Your task to perform on an android device: turn off notifications settings in the gmail app Image 0: 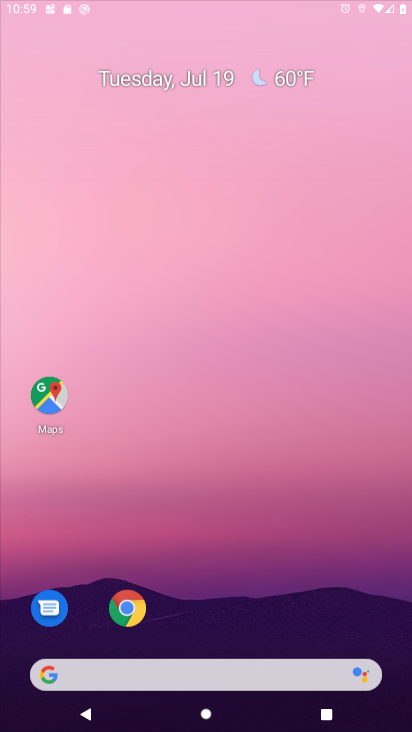
Step 0: click (214, 502)
Your task to perform on an android device: turn off notifications settings in the gmail app Image 1: 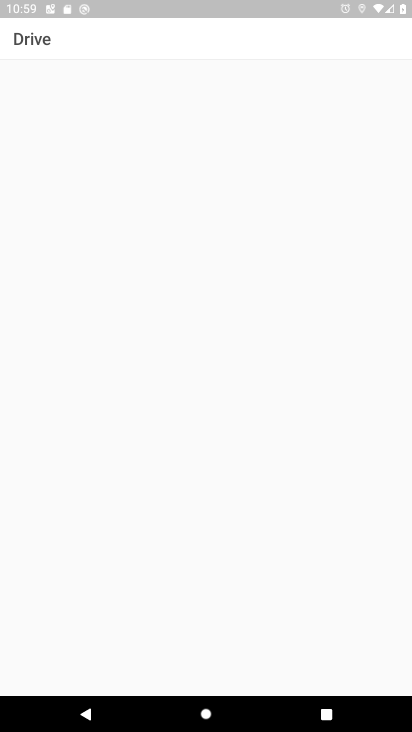
Step 1: press home button
Your task to perform on an android device: turn off notifications settings in the gmail app Image 2: 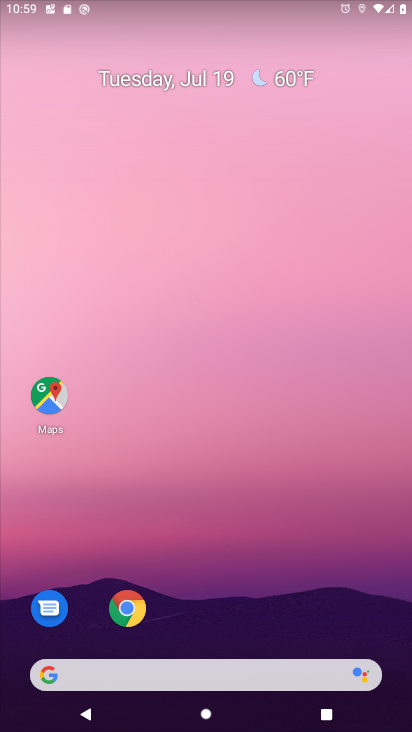
Step 2: drag from (213, 640) to (265, 95)
Your task to perform on an android device: turn off notifications settings in the gmail app Image 3: 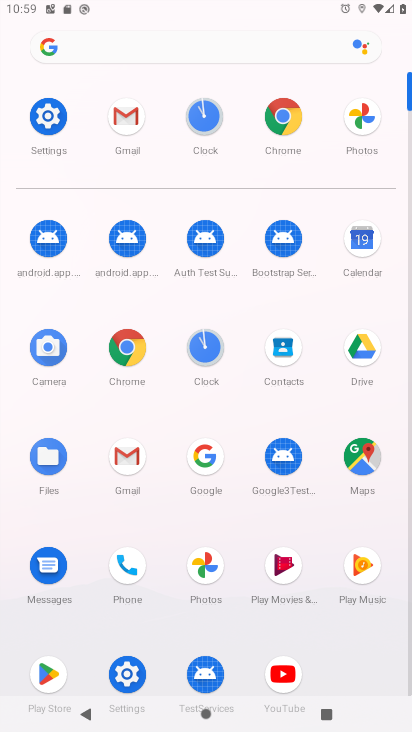
Step 3: click (126, 106)
Your task to perform on an android device: turn off notifications settings in the gmail app Image 4: 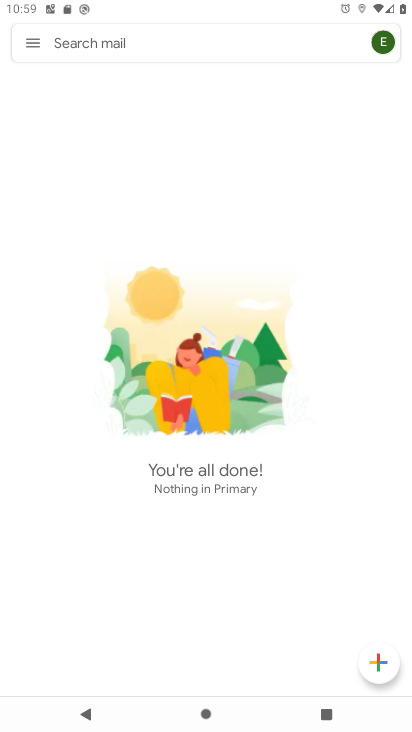
Step 4: click (126, 106)
Your task to perform on an android device: turn off notifications settings in the gmail app Image 5: 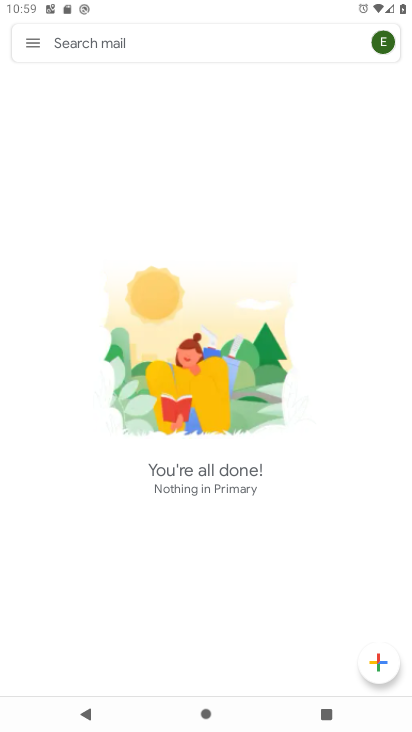
Step 5: click (38, 47)
Your task to perform on an android device: turn off notifications settings in the gmail app Image 6: 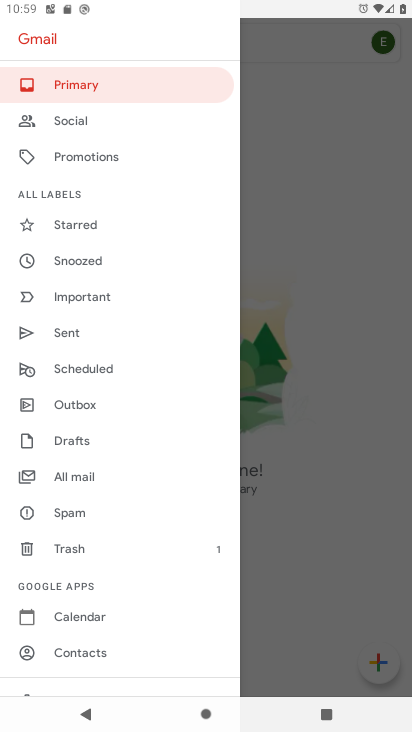
Step 6: drag from (129, 551) to (107, 161)
Your task to perform on an android device: turn off notifications settings in the gmail app Image 7: 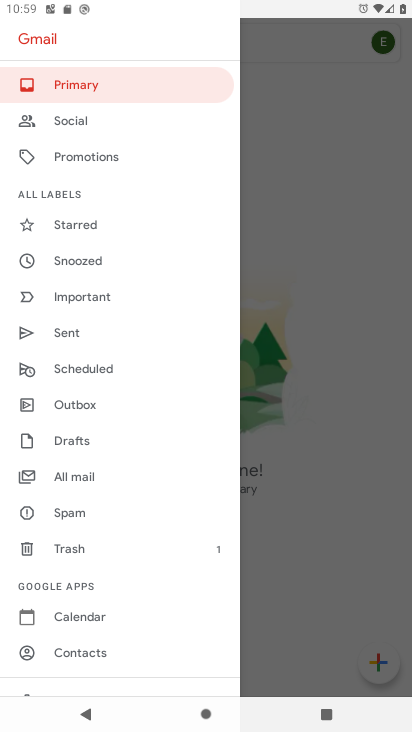
Step 7: drag from (153, 621) to (192, 74)
Your task to perform on an android device: turn off notifications settings in the gmail app Image 8: 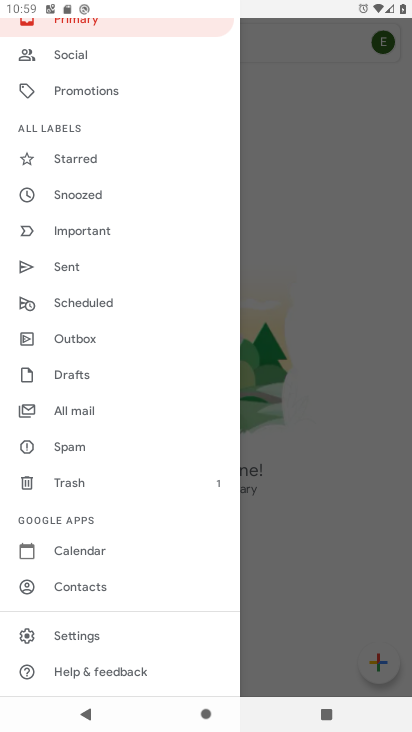
Step 8: click (107, 651)
Your task to perform on an android device: turn off notifications settings in the gmail app Image 9: 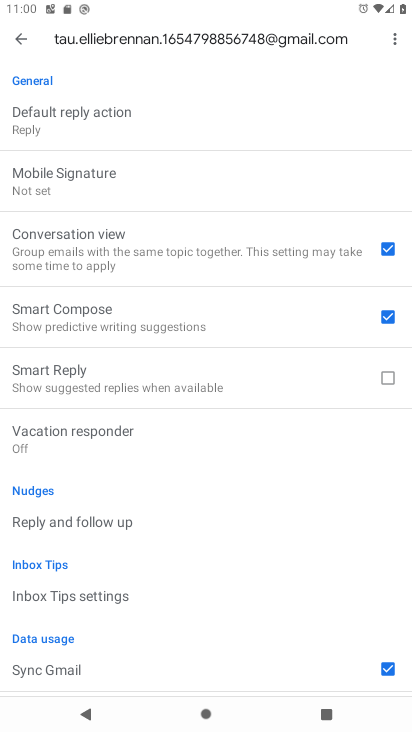
Step 9: click (16, 34)
Your task to perform on an android device: turn off notifications settings in the gmail app Image 10: 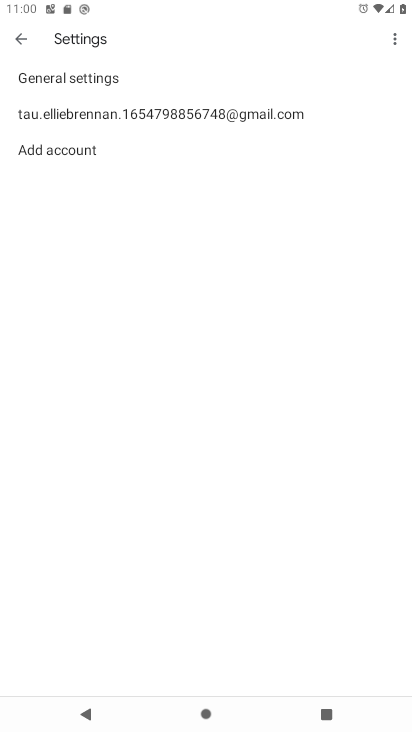
Step 10: click (66, 73)
Your task to perform on an android device: turn off notifications settings in the gmail app Image 11: 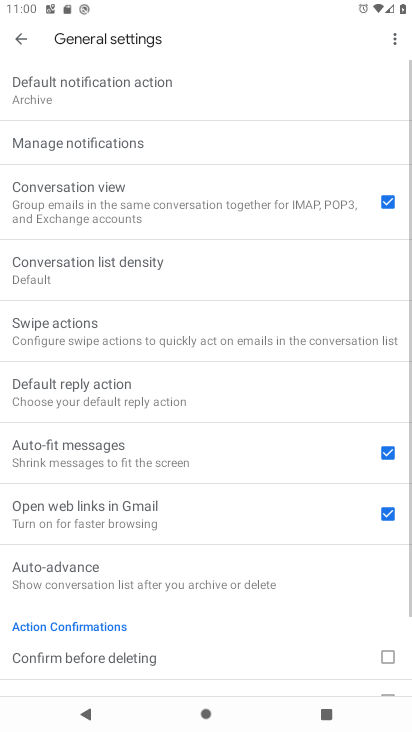
Step 11: click (49, 129)
Your task to perform on an android device: turn off notifications settings in the gmail app Image 12: 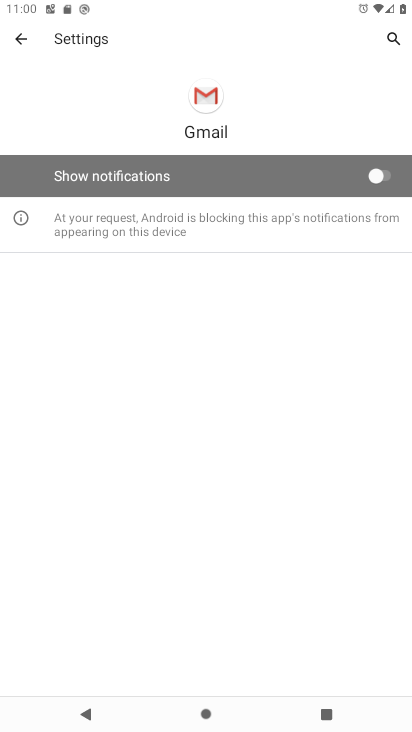
Step 12: task complete